Your task to perform on an android device: Open the map Image 0: 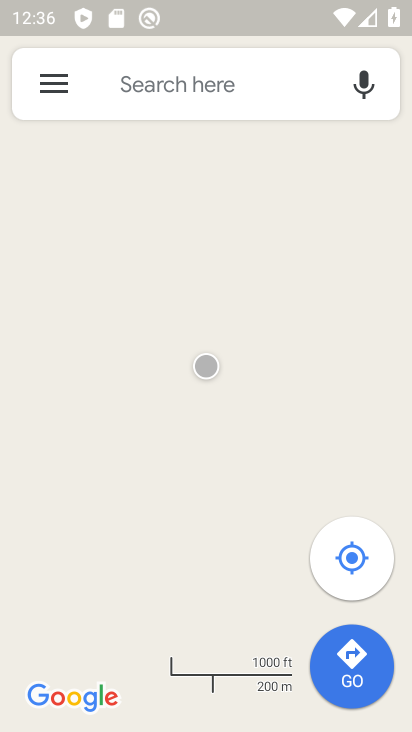
Step 0: press home button
Your task to perform on an android device: Open the map Image 1: 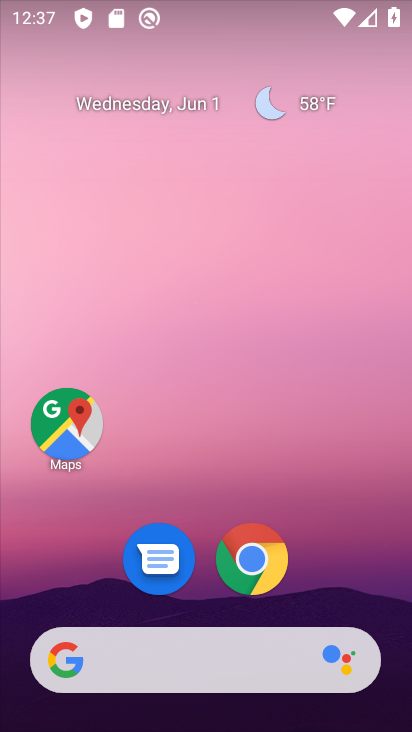
Step 1: click (69, 439)
Your task to perform on an android device: Open the map Image 2: 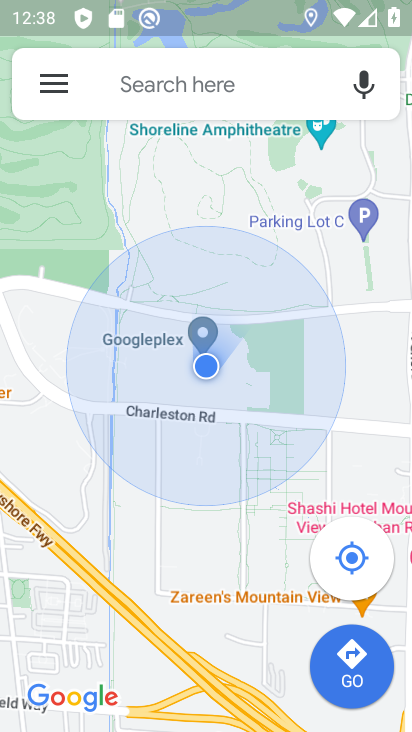
Step 2: task complete